Your task to perform on an android device: Go to Android settings Image 0: 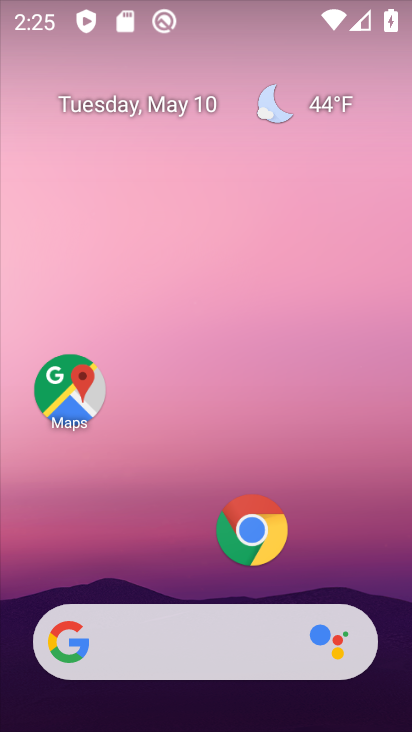
Step 0: drag from (197, 588) to (200, 87)
Your task to perform on an android device: Go to Android settings Image 1: 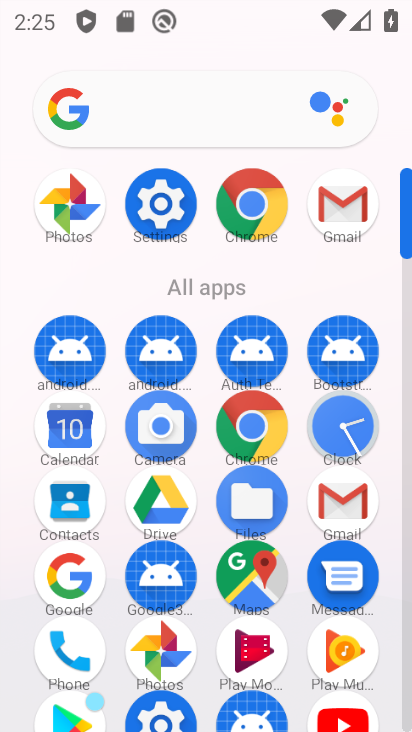
Step 1: click (168, 701)
Your task to perform on an android device: Go to Android settings Image 2: 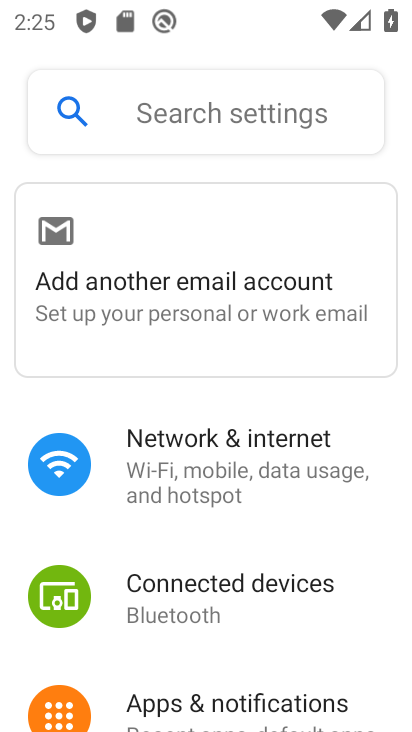
Step 2: drag from (211, 663) to (299, 141)
Your task to perform on an android device: Go to Android settings Image 3: 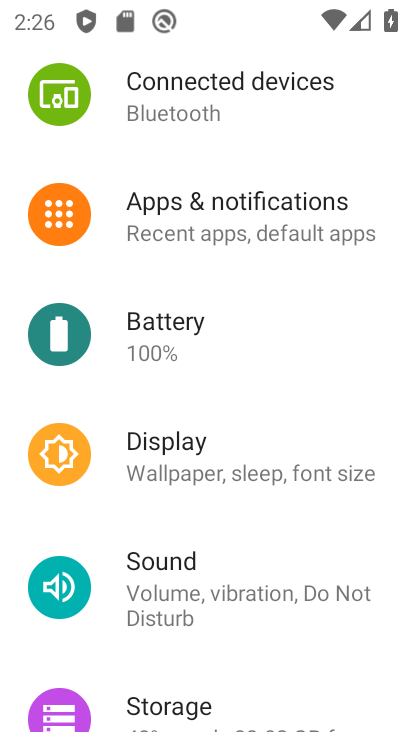
Step 3: drag from (242, 655) to (264, 375)
Your task to perform on an android device: Go to Android settings Image 4: 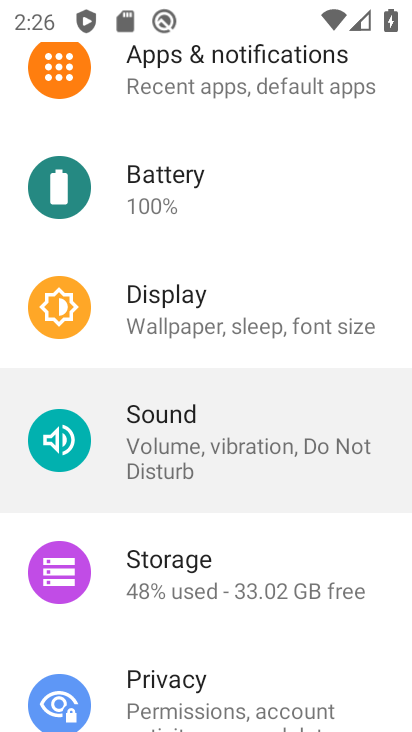
Step 4: drag from (265, 192) to (265, 89)
Your task to perform on an android device: Go to Android settings Image 5: 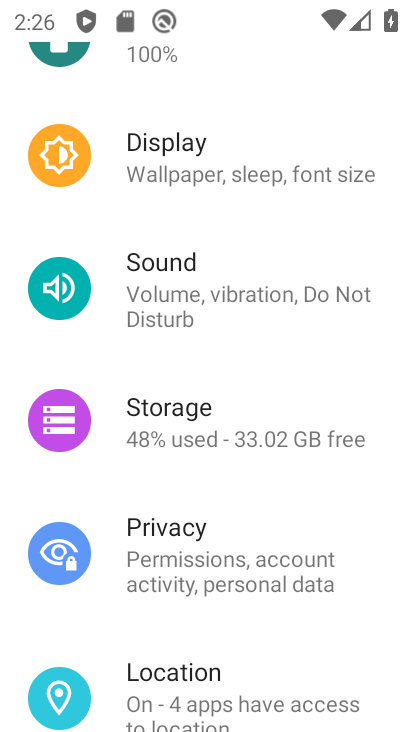
Step 5: drag from (255, 653) to (281, 317)
Your task to perform on an android device: Go to Android settings Image 6: 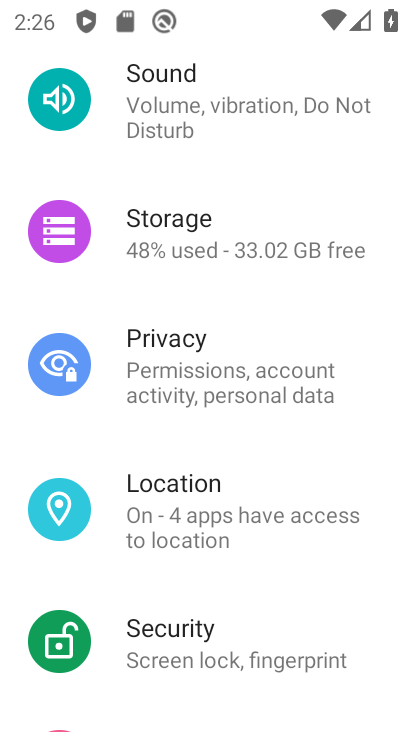
Step 6: drag from (288, 189) to (294, 85)
Your task to perform on an android device: Go to Android settings Image 7: 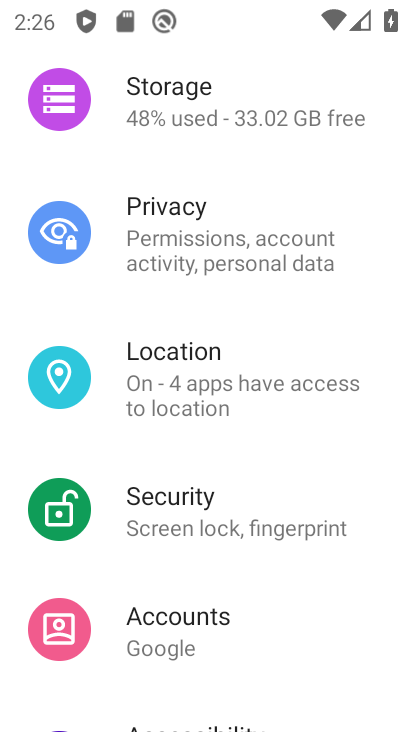
Step 7: drag from (223, 625) to (267, 124)
Your task to perform on an android device: Go to Android settings Image 8: 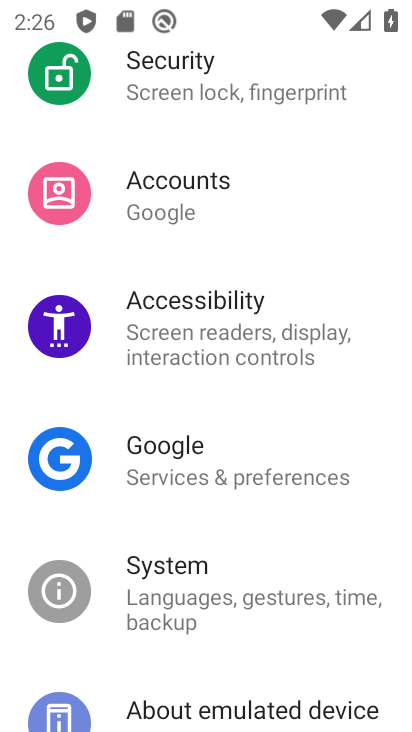
Step 8: click (201, 700)
Your task to perform on an android device: Go to Android settings Image 9: 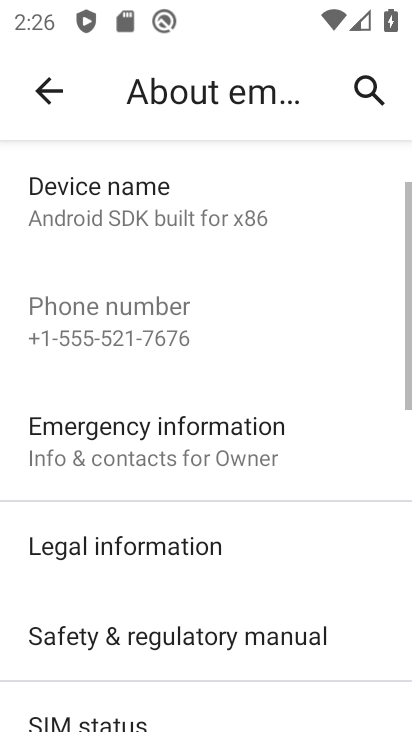
Step 9: drag from (195, 667) to (202, 117)
Your task to perform on an android device: Go to Android settings Image 10: 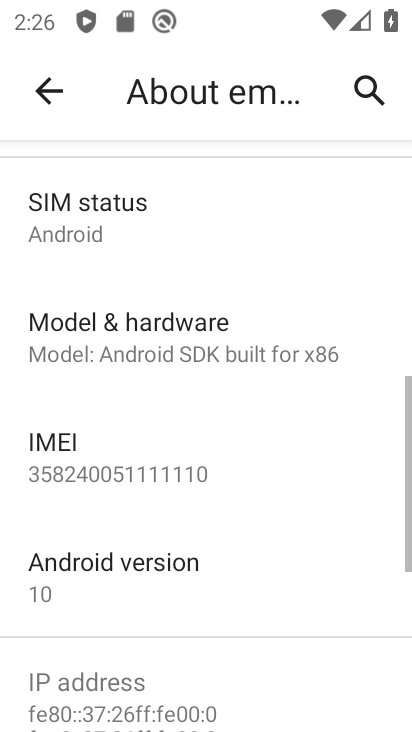
Step 10: click (133, 594)
Your task to perform on an android device: Go to Android settings Image 11: 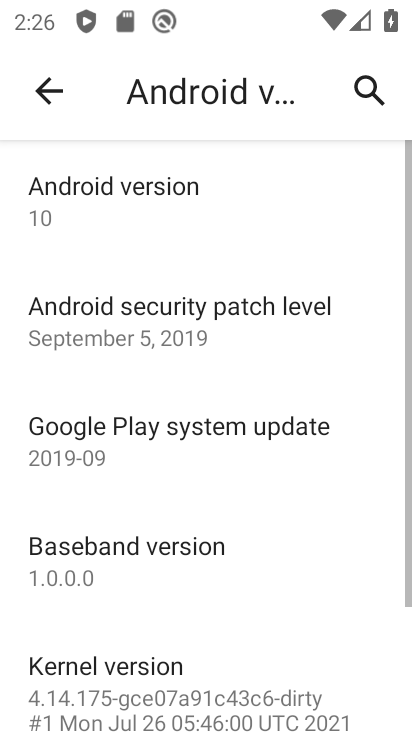
Step 11: task complete